Your task to perform on an android device: turn off javascript in the chrome app Image 0: 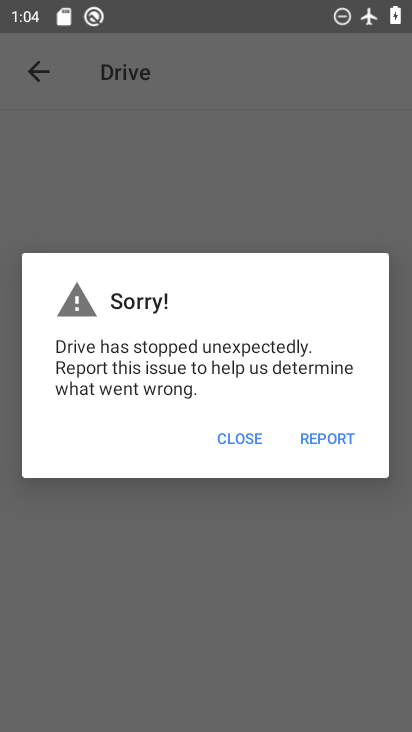
Step 0: click (209, 164)
Your task to perform on an android device: turn off javascript in the chrome app Image 1: 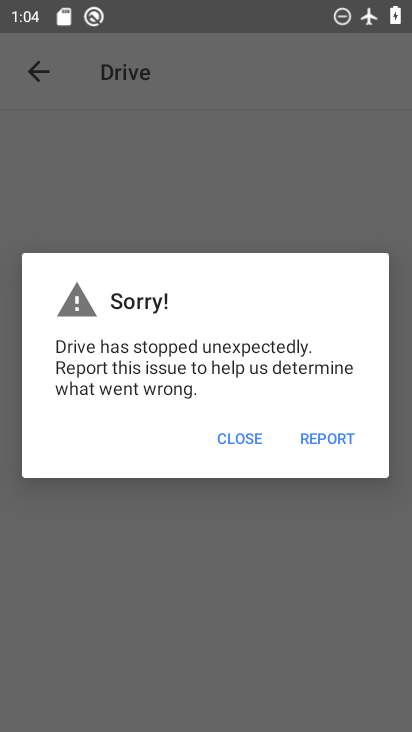
Step 1: press home button
Your task to perform on an android device: turn off javascript in the chrome app Image 2: 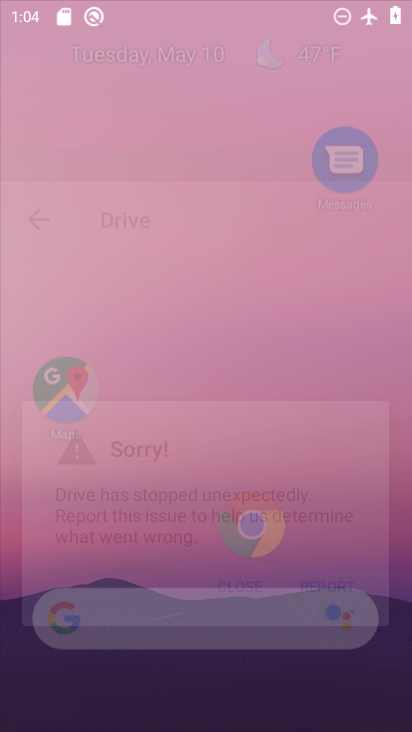
Step 2: drag from (191, 606) to (218, 56)
Your task to perform on an android device: turn off javascript in the chrome app Image 3: 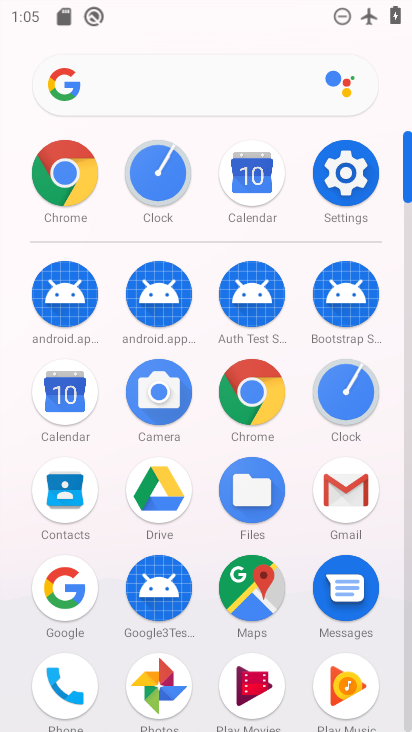
Step 3: click (238, 396)
Your task to perform on an android device: turn off javascript in the chrome app Image 4: 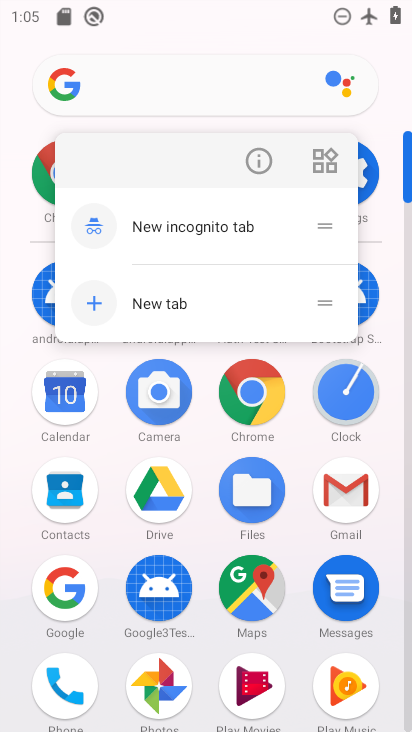
Step 4: click (265, 156)
Your task to perform on an android device: turn off javascript in the chrome app Image 5: 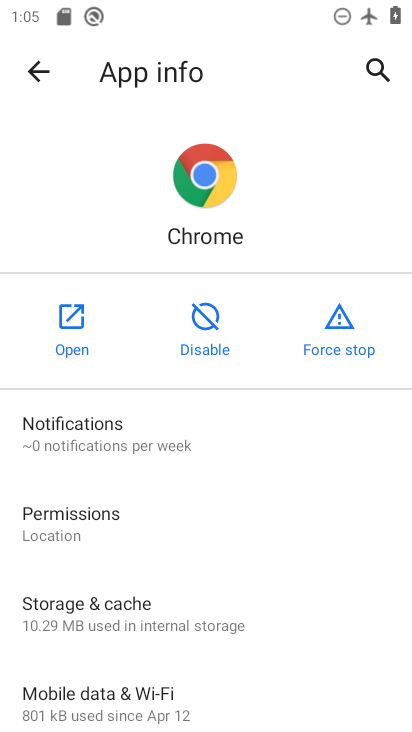
Step 5: click (63, 345)
Your task to perform on an android device: turn off javascript in the chrome app Image 6: 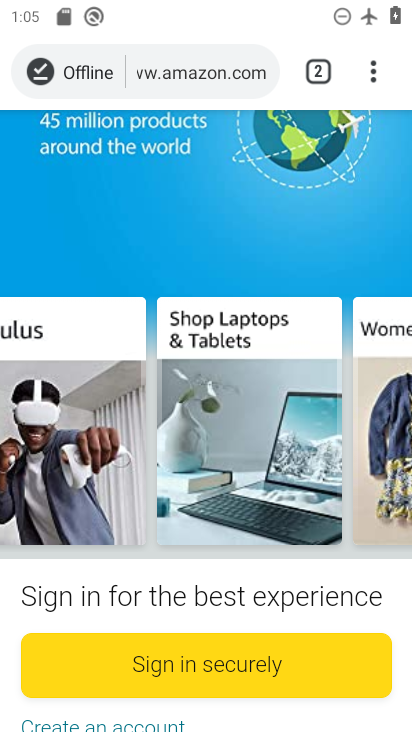
Step 6: drag from (370, 60) to (164, 557)
Your task to perform on an android device: turn off javascript in the chrome app Image 7: 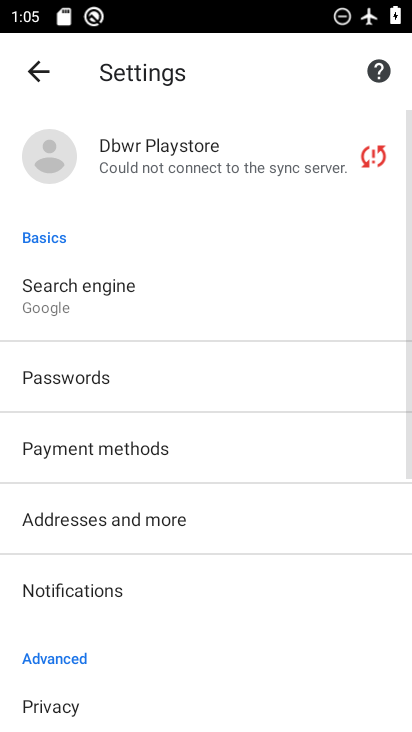
Step 7: drag from (181, 622) to (235, 179)
Your task to perform on an android device: turn off javascript in the chrome app Image 8: 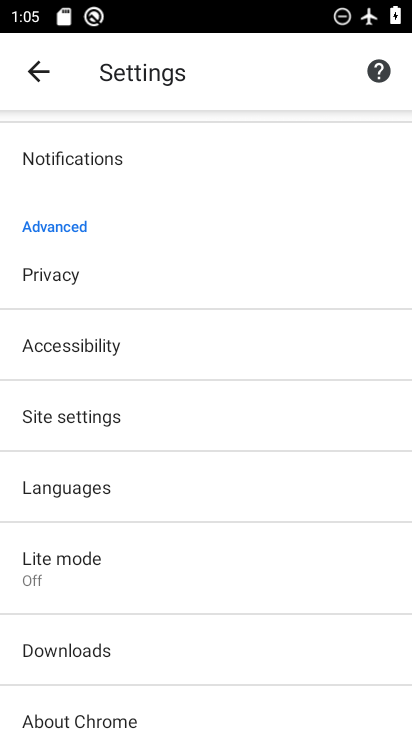
Step 8: click (113, 424)
Your task to perform on an android device: turn off javascript in the chrome app Image 9: 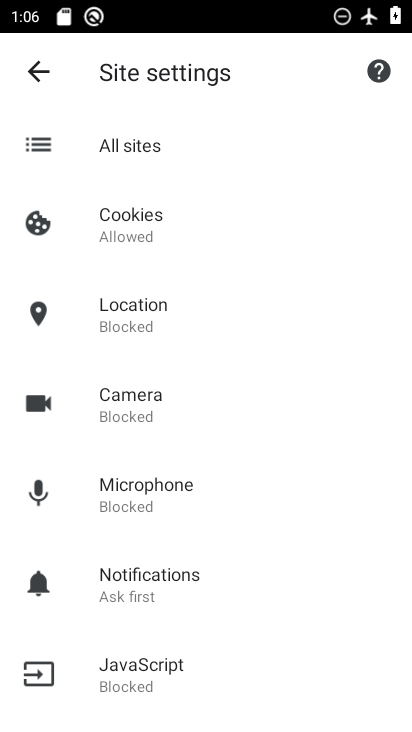
Step 9: drag from (190, 482) to (276, 64)
Your task to perform on an android device: turn off javascript in the chrome app Image 10: 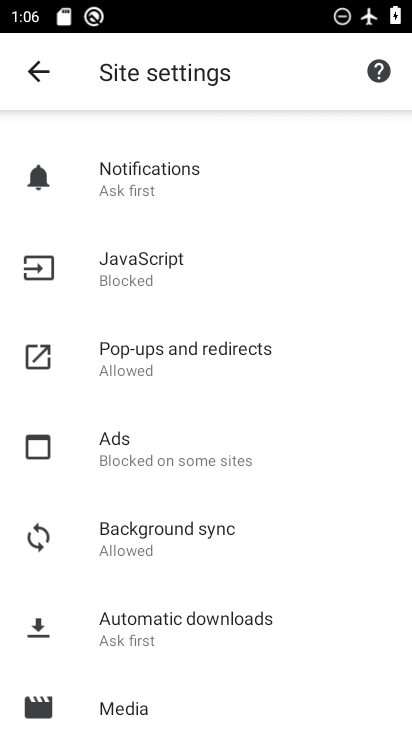
Step 10: click (176, 278)
Your task to perform on an android device: turn off javascript in the chrome app Image 11: 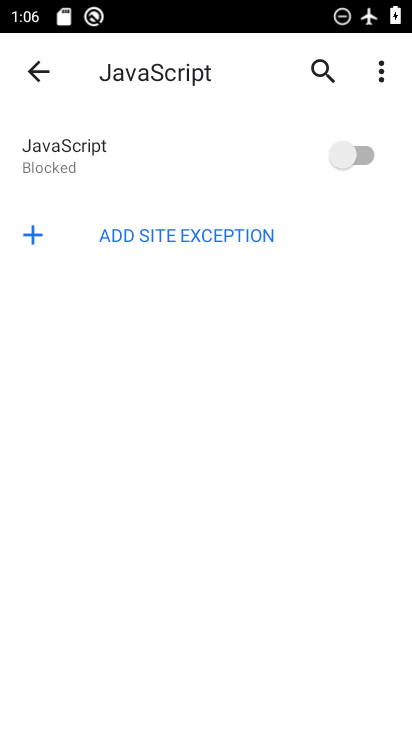
Step 11: task complete